Your task to perform on an android device: Clear the cart on costco. Image 0: 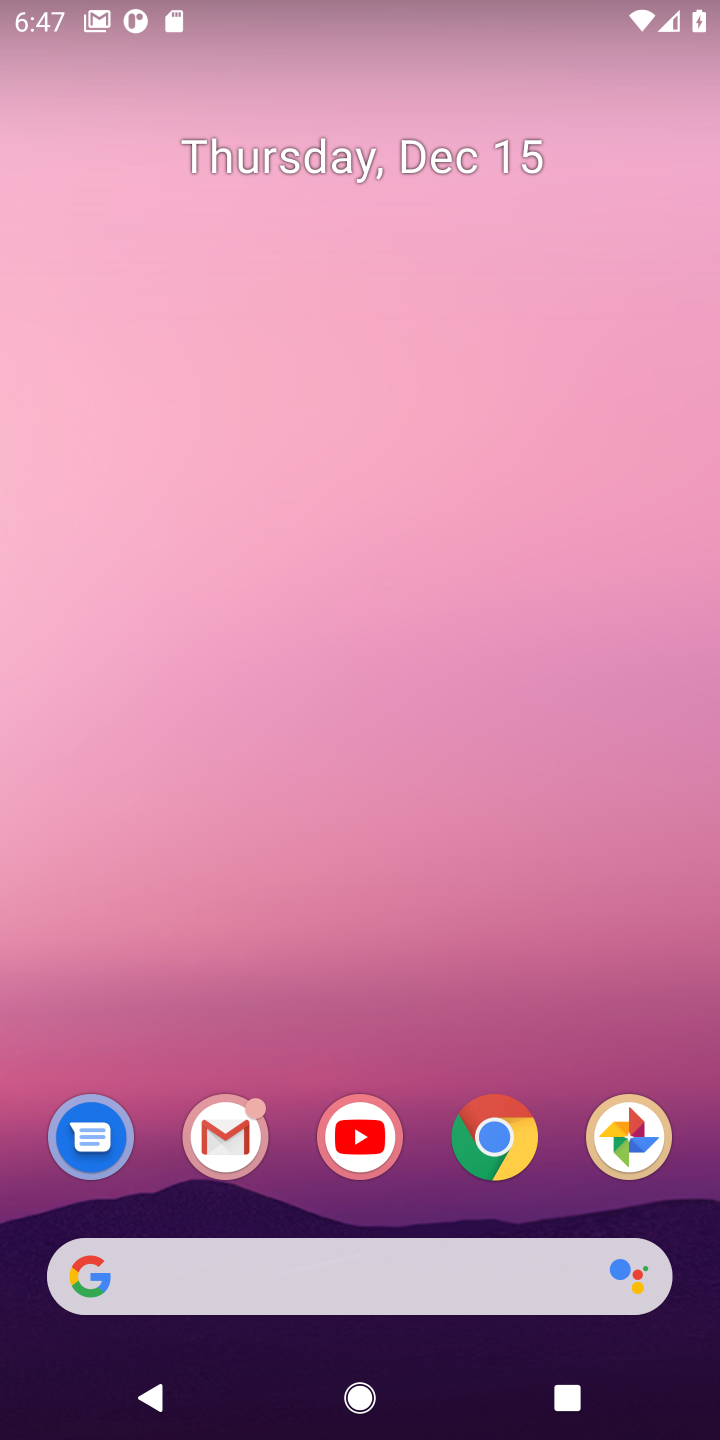
Step 0: drag from (294, 1239) to (385, 241)
Your task to perform on an android device: Clear the cart on costco. Image 1: 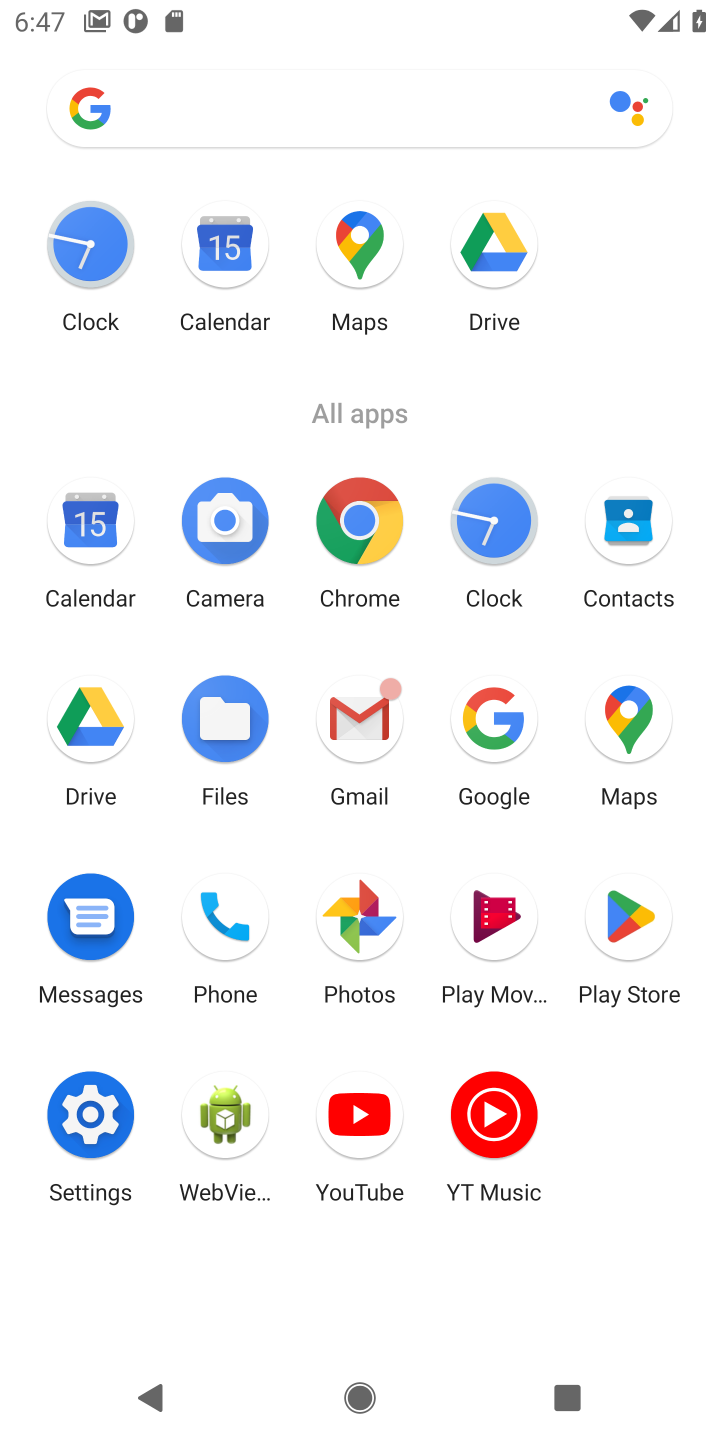
Step 1: click (496, 711)
Your task to perform on an android device: Clear the cart on costco. Image 2: 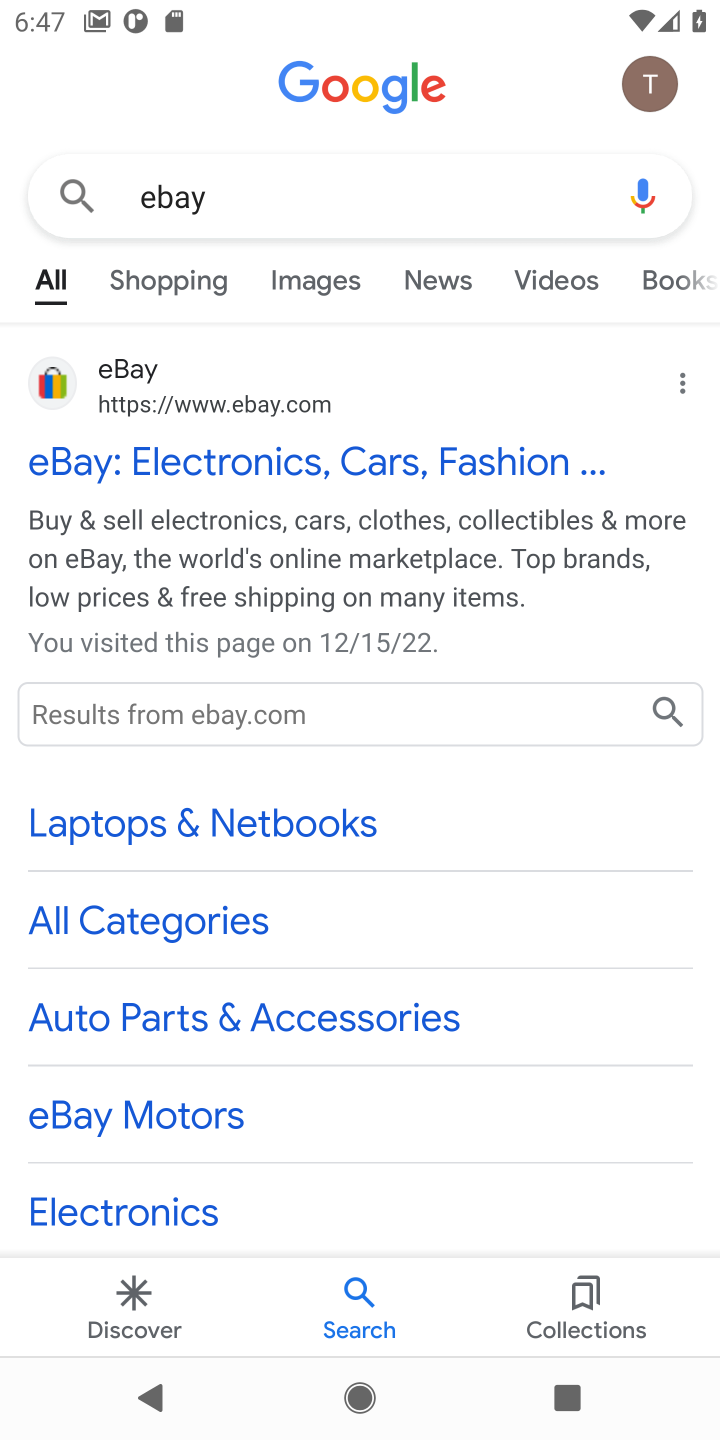
Step 2: click (188, 205)
Your task to perform on an android device: Clear the cart on costco. Image 3: 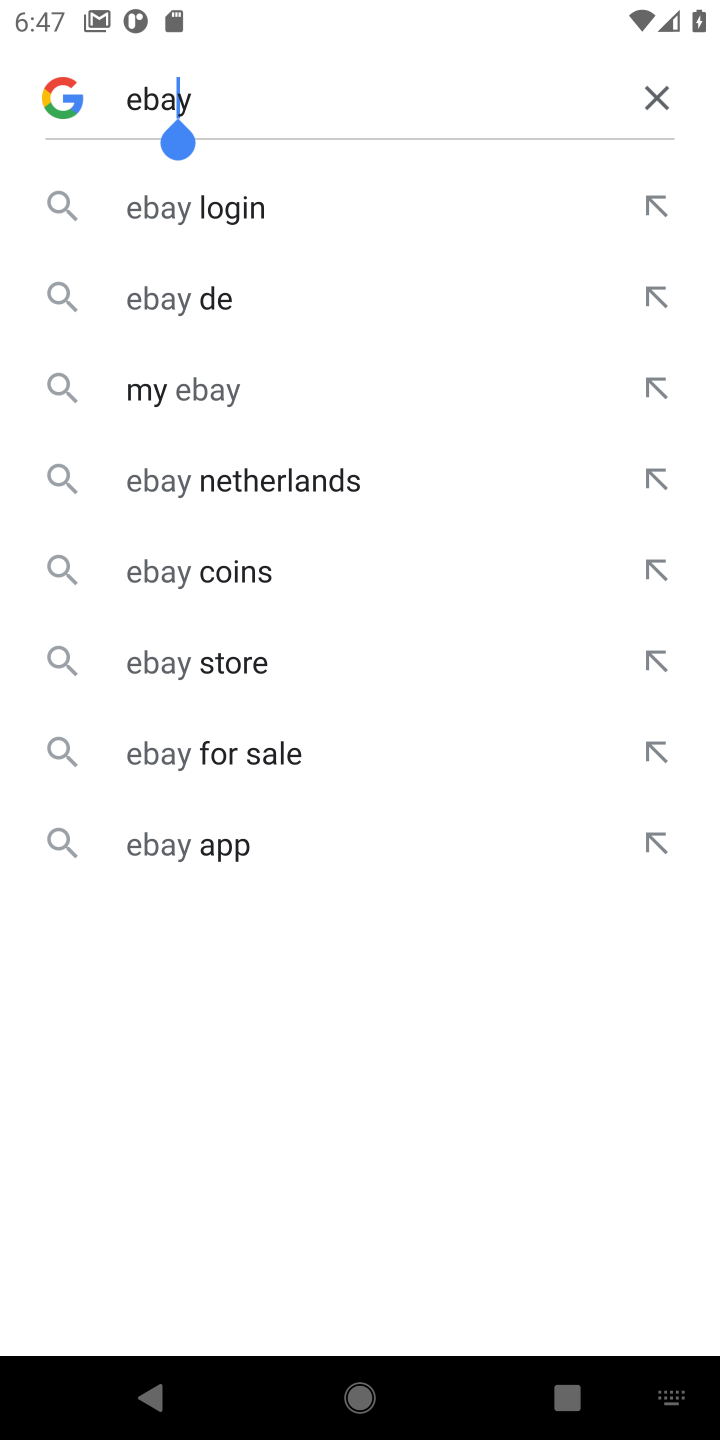
Step 3: click (655, 95)
Your task to perform on an android device: Clear the cart on costco. Image 4: 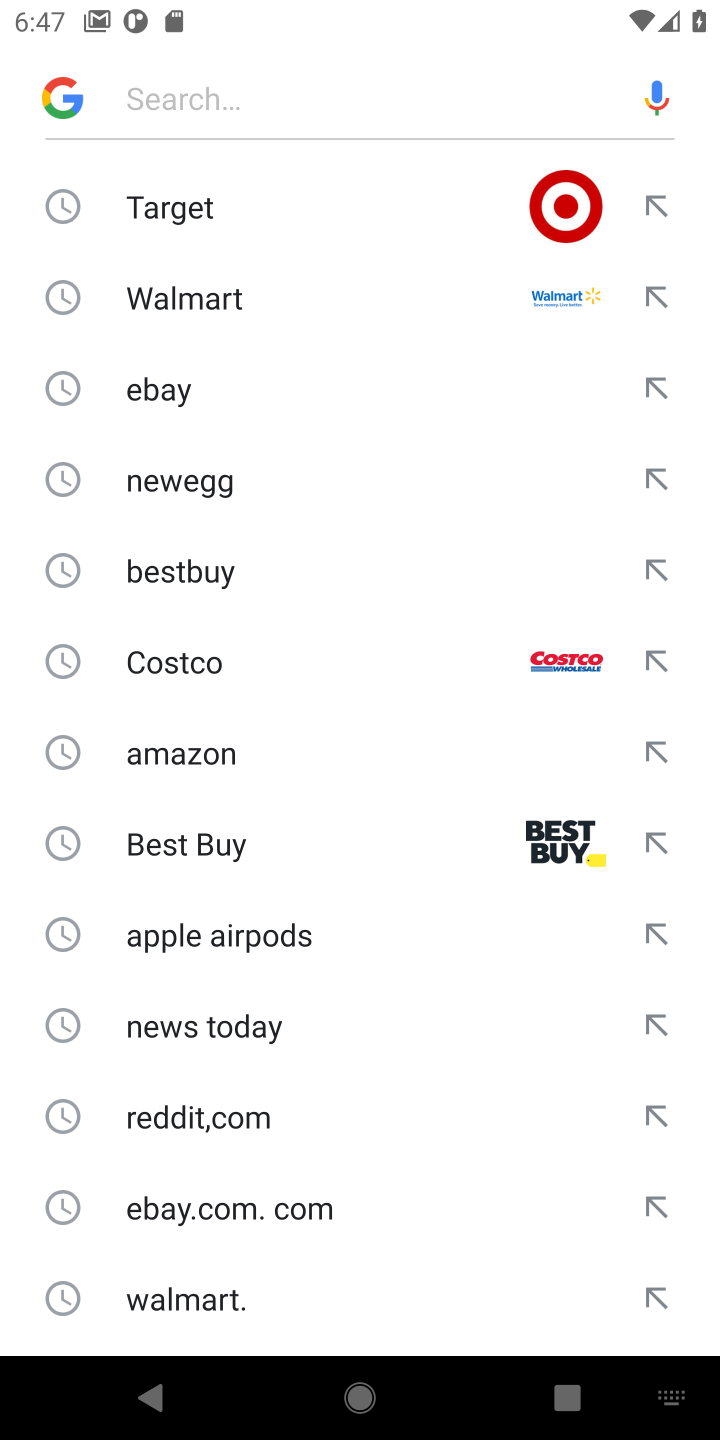
Step 4: click (175, 653)
Your task to perform on an android device: Clear the cart on costco. Image 5: 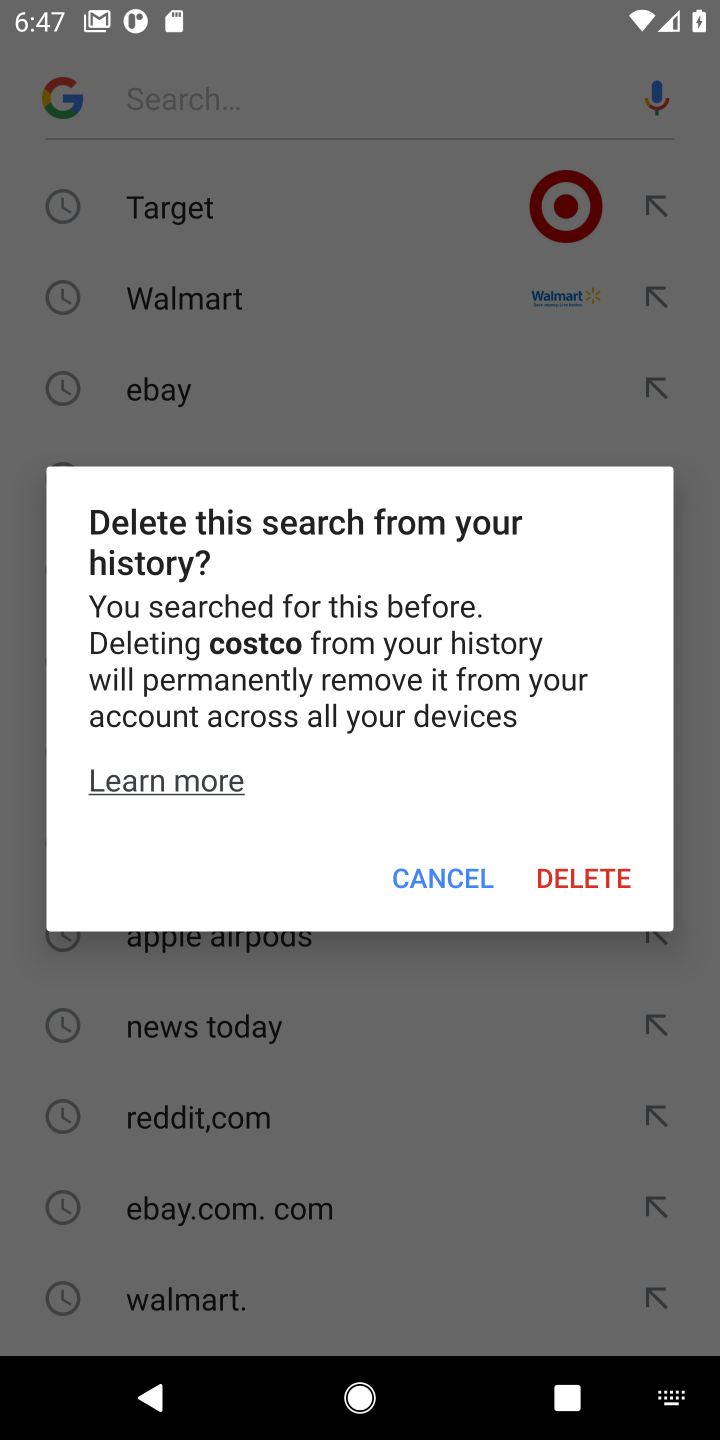
Step 5: click (444, 855)
Your task to perform on an android device: Clear the cart on costco. Image 6: 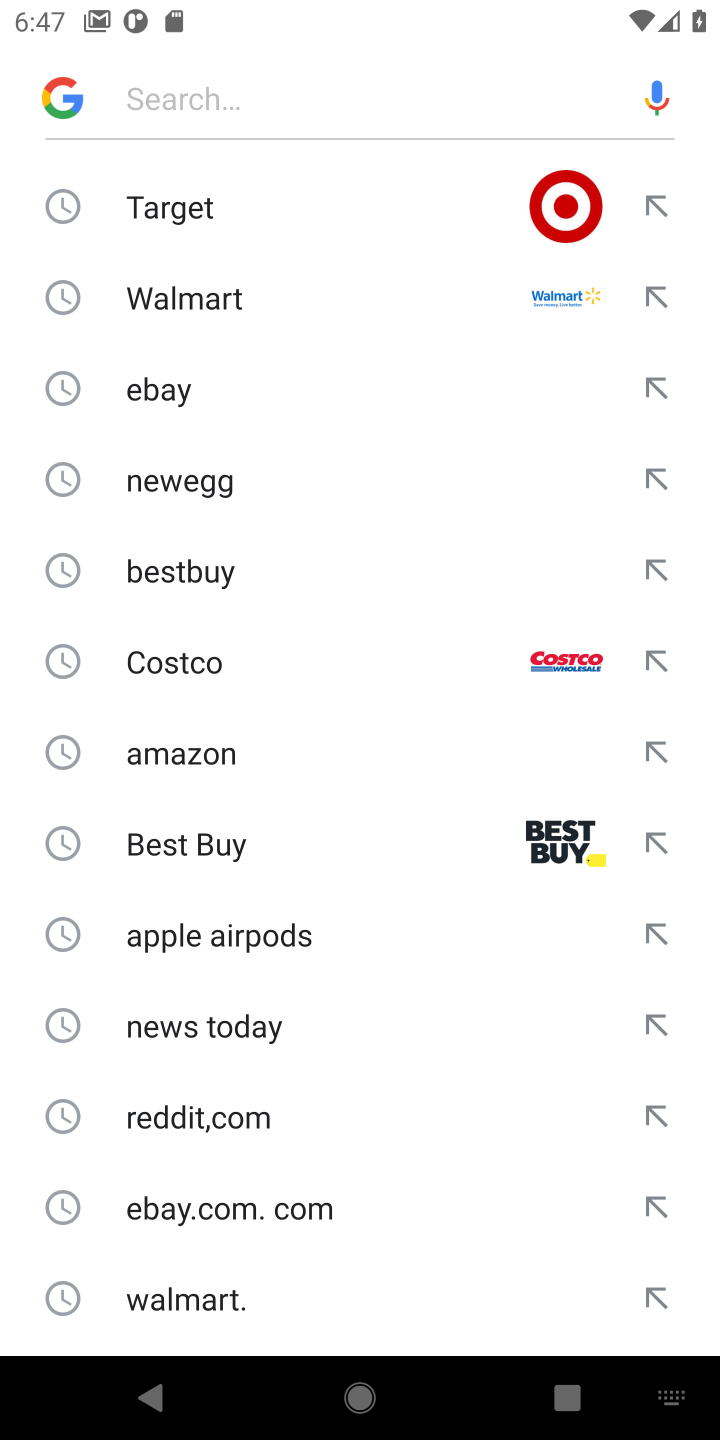
Step 6: click (564, 656)
Your task to perform on an android device: Clear the cart on costco. Image 7: 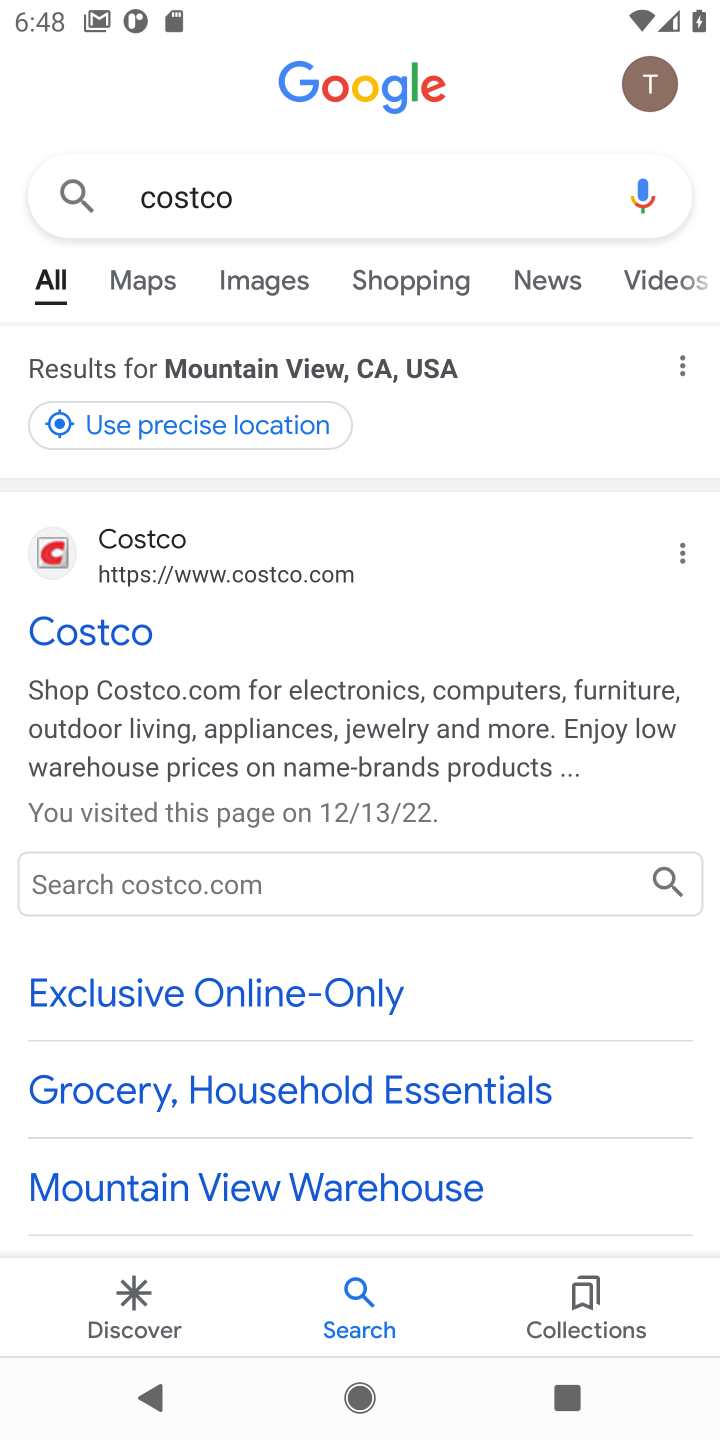
Step 7: click (89, 635)
Your task to perform on an android device: Clear the cart on costco. Image 8: 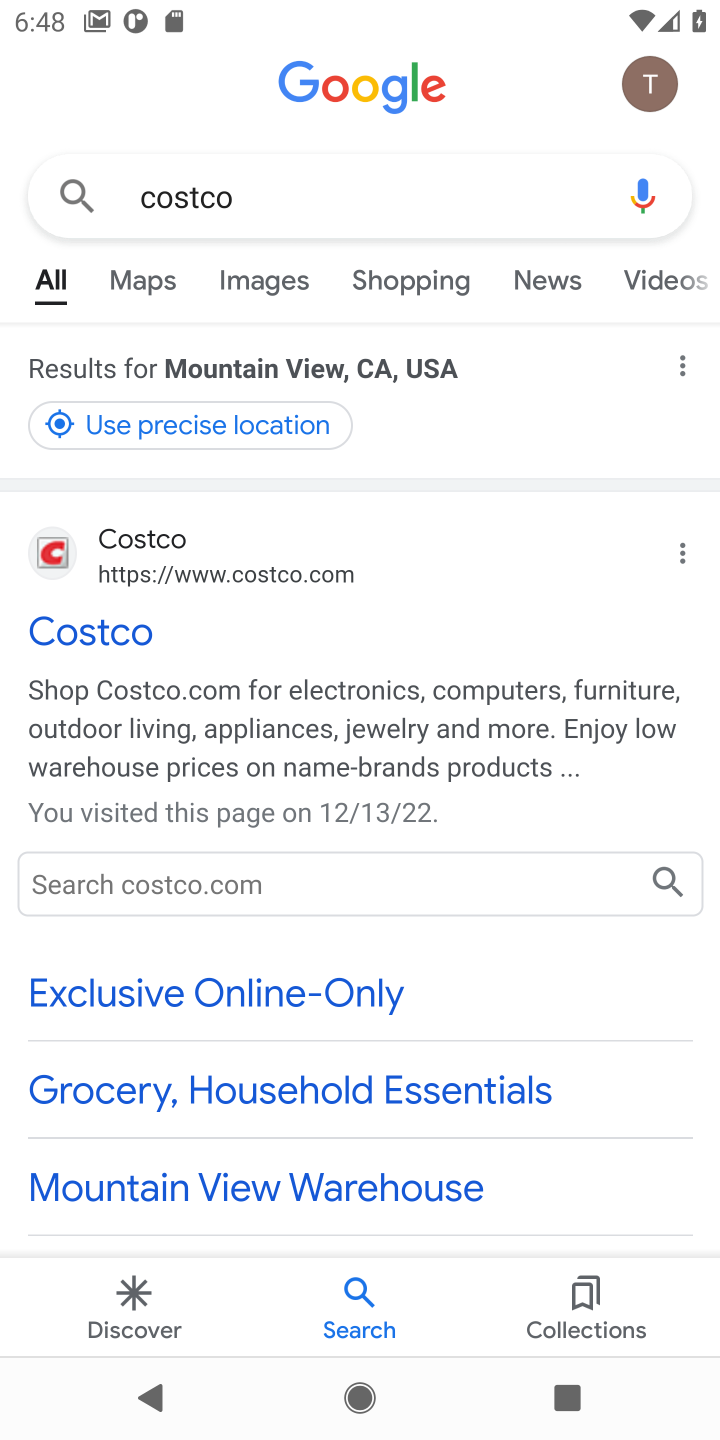
Step 8: click (91, 644)
Your task to perform on an android device: Clear the cart on costco. Image 9: 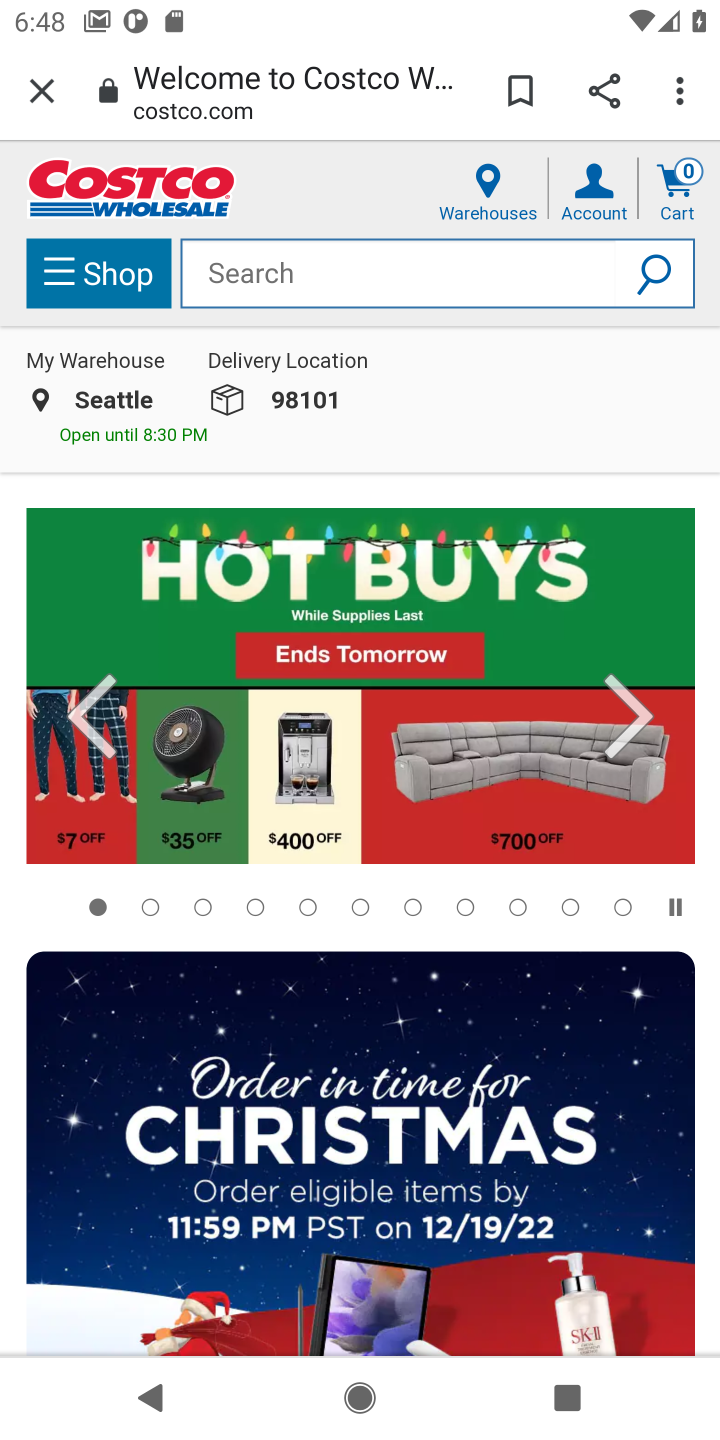
Step 9: click (679, 187)
Your task to perform on an android device: Clear the cart on costco. Image 10: 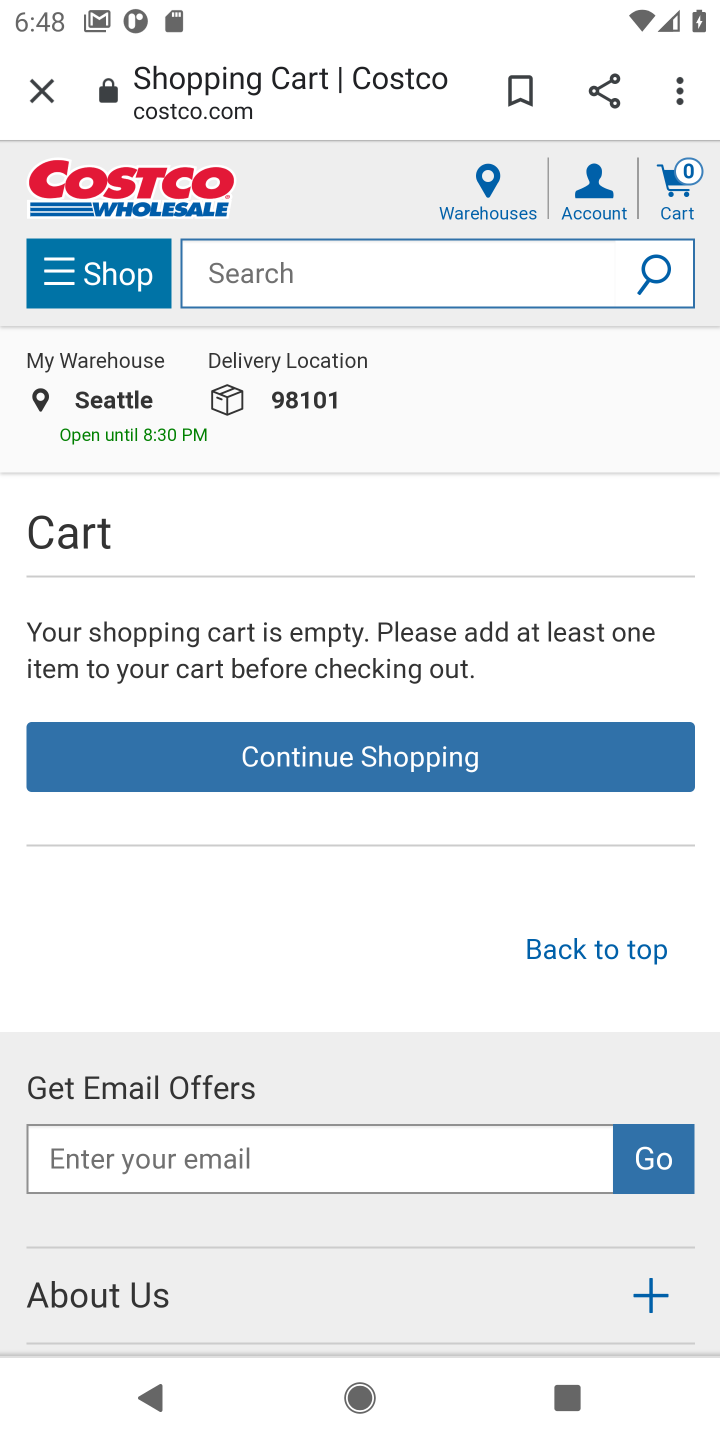
Step 10: task complete